Your task to perform on an android device: all mails in gmail Image 0: 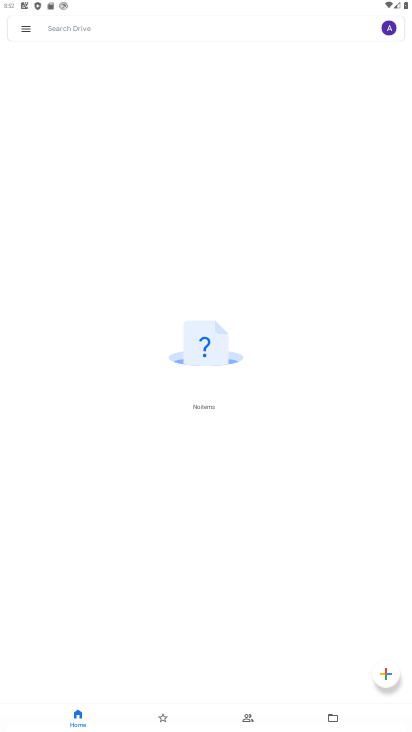
Step 0: press home button
Your task to perform on an android device: all mails in gmail Image 1: 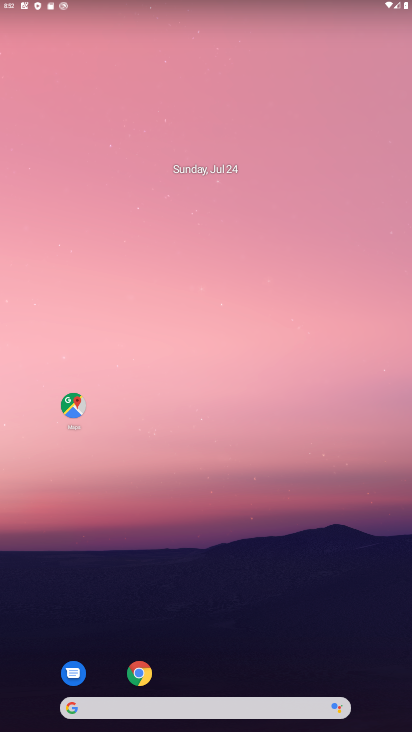
Step 1: drag from (196, 634) to (195, 306)
Your task to perform on an android device: all mails in gmail Image 2: 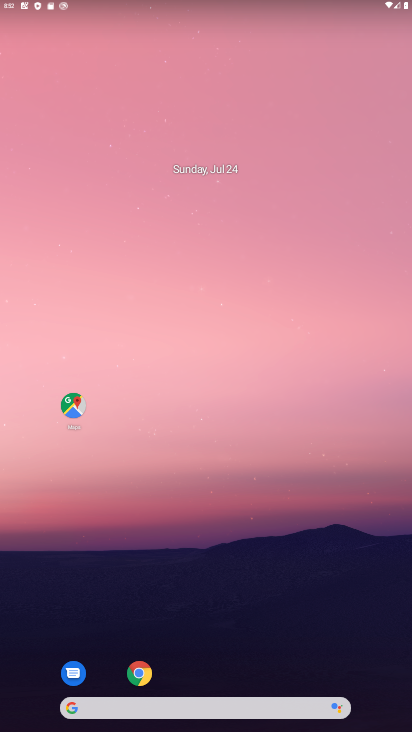
Step 2: drag from (199, 652) to (215, 89)
Your task to perform on an android device: all mails in gmail Image 3: 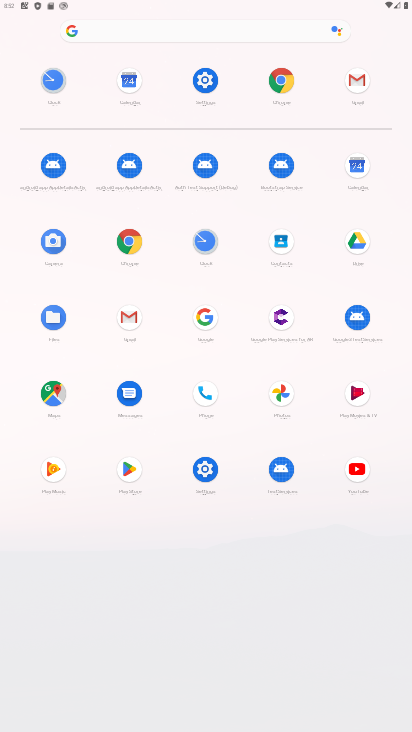
Step 3: click (354, 89)
Your task to perform on an android device: all mails in gmail Image 4: 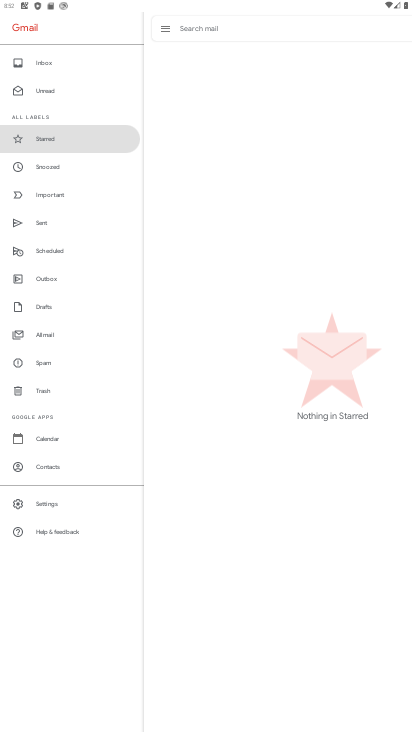
Step 4: click (45, 340)
Your task to perform on an android device: all mails in gmail Image 5: 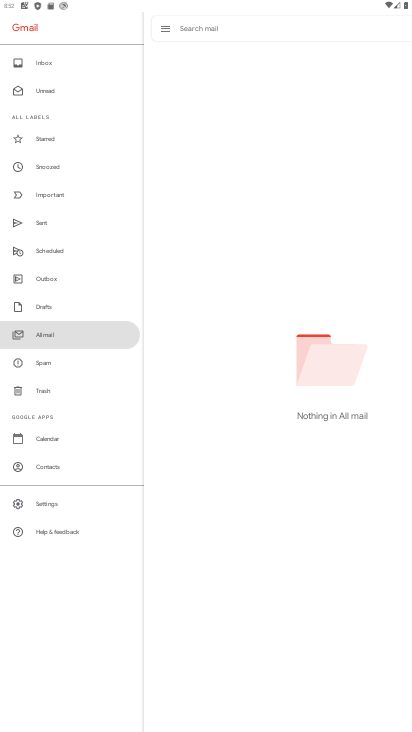
Step 5: task complete